Your task to perform on an android device: Open CNN.com Image 0: 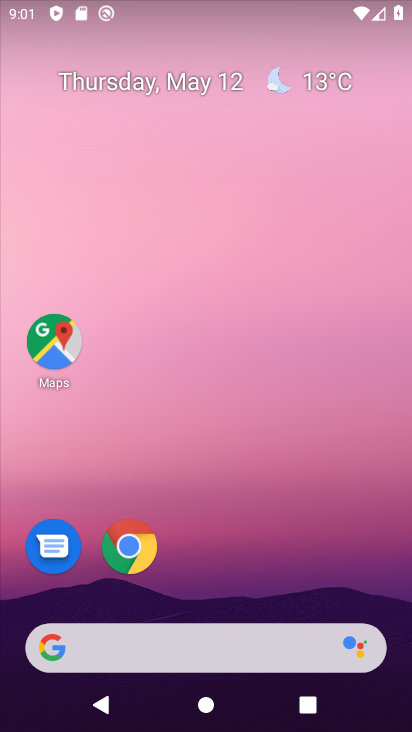
Step 0: click (132, 539)
Your task to perform on an android device: Open CNN.com Image 1: 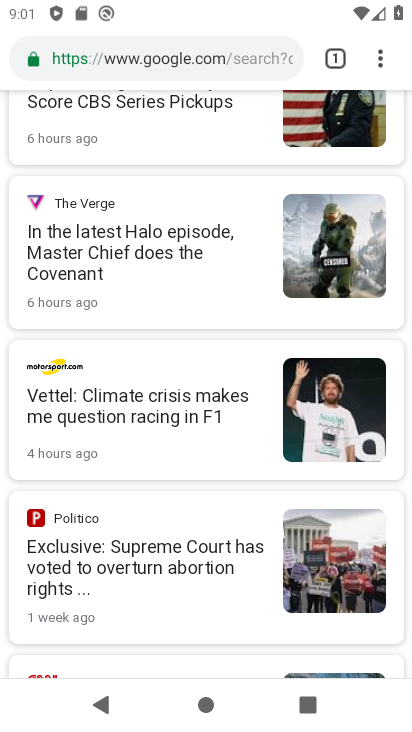
Step 1: click (165, 54)
Your task to perform on an android device: Open CNN.com Image 2: 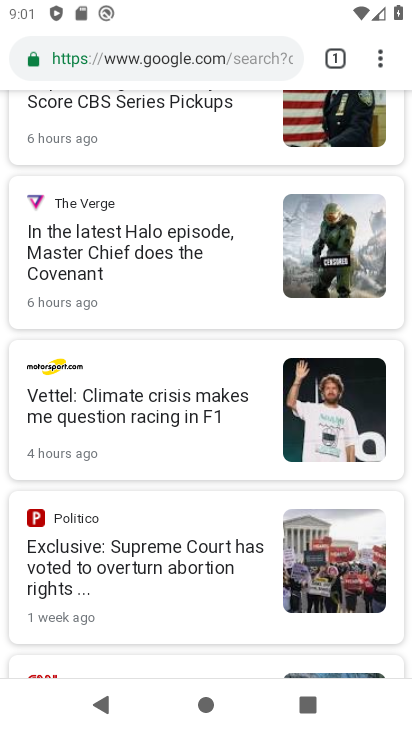
Step 2: click (165, 54)
Your task to perform on an android device: Open CNN.com Image 3: 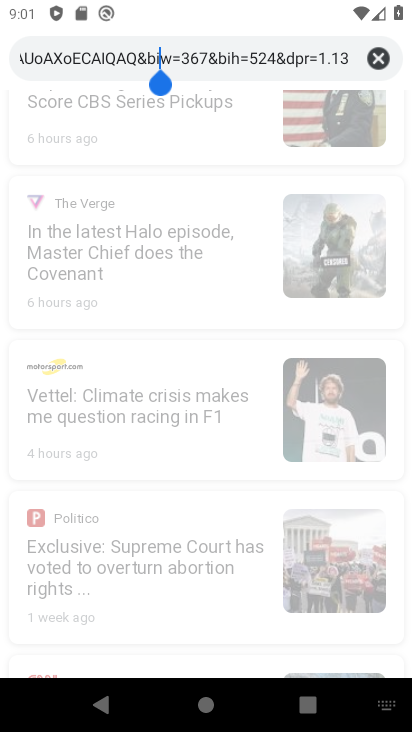
Step 3: click (381, 56)
Your task to perform on an android device: Open CNN.com Image 4: 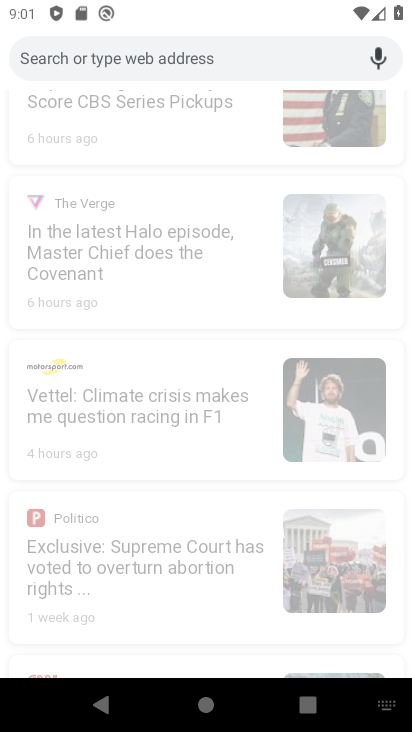
Step 4: click (381, 56)
Your task to perform on an android device: Open CNN.com Image 5: 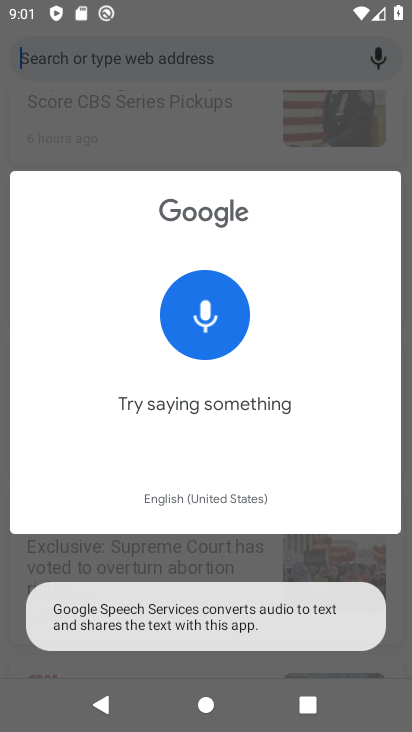
Step 5: click (224, 59)
Your task to perform on an android device: Open CNN.com Image 6: 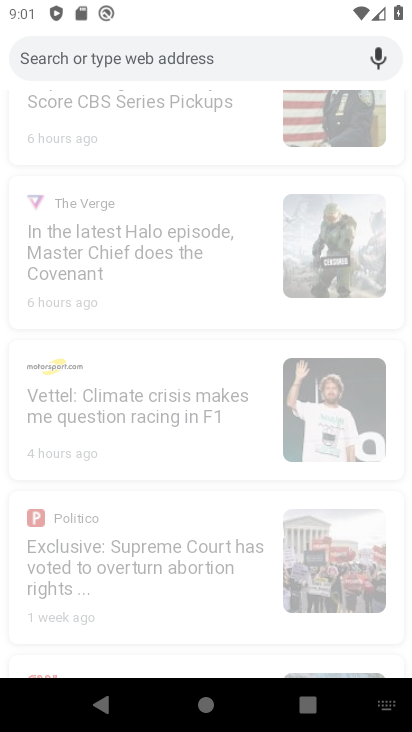
Step 6: type "CNN.com"
Your task to perform on an android device: Open CNN.com Image 7: 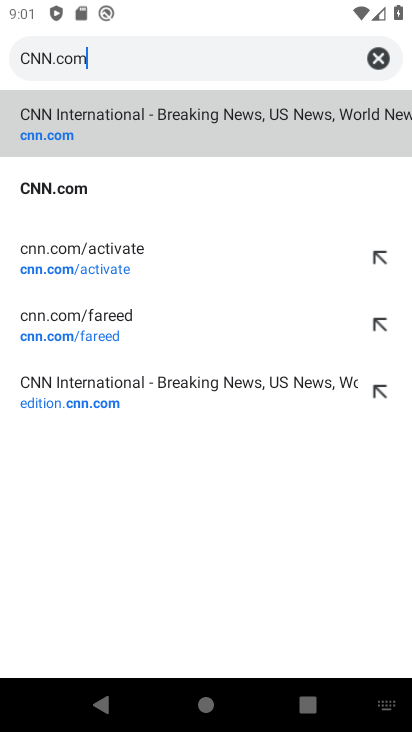
Step 7: click (53, 135)
Your task to perform on an android device: Open CNN.com Image 8: 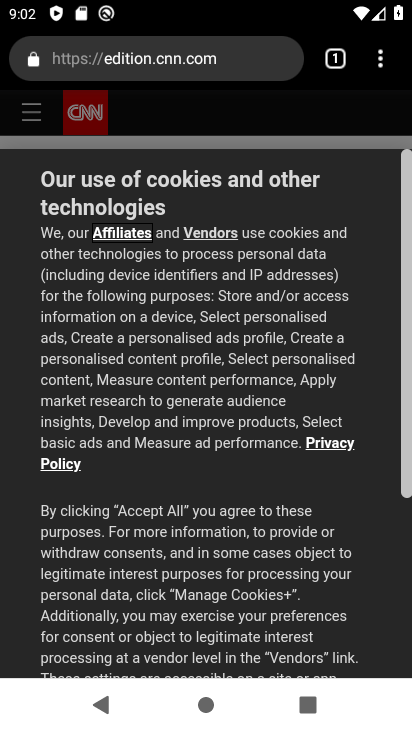
Step 8: task complete